Your task to perform on an android device: Check the weather Image 0: 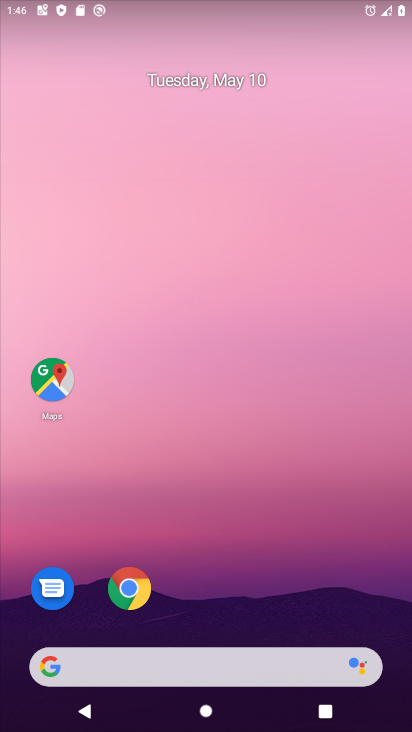
Step 0: click (166, 153)
Your task to perform on an android device: Check the weather Image 1: 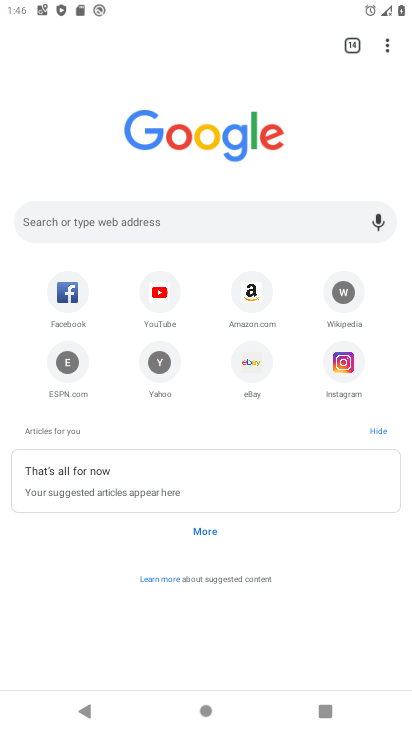
Step 1: press home button
Your task to perform on an android device: Check the weather Image 2: 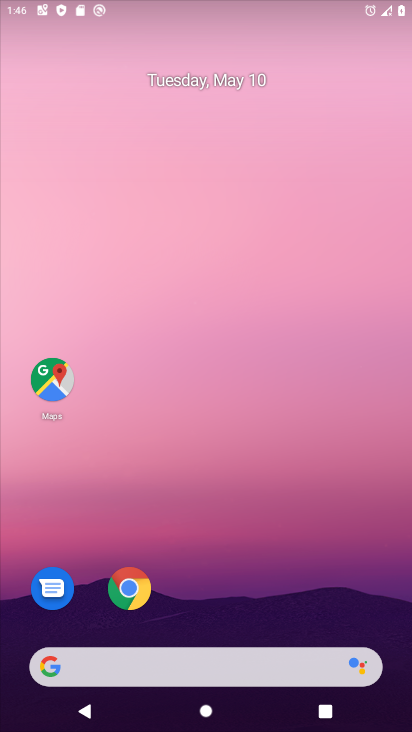
Step 2: drag from (229, 586) to (206, 226)
Your task to perform on an android device: Check the weather Image 3: 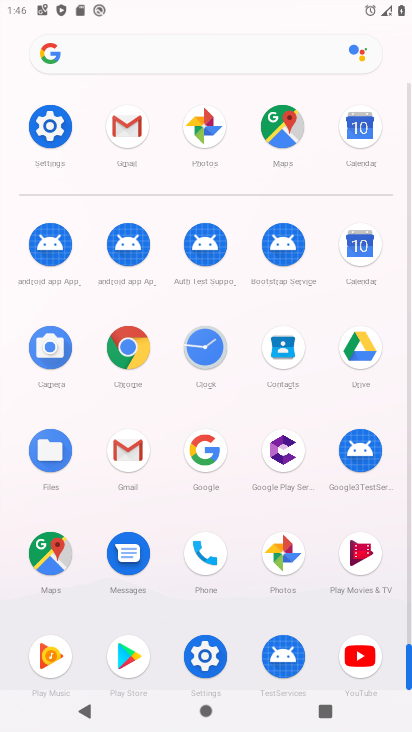
Step 3: click (126, 345)
Your task to perform on an android device: Check the weather Image 4: 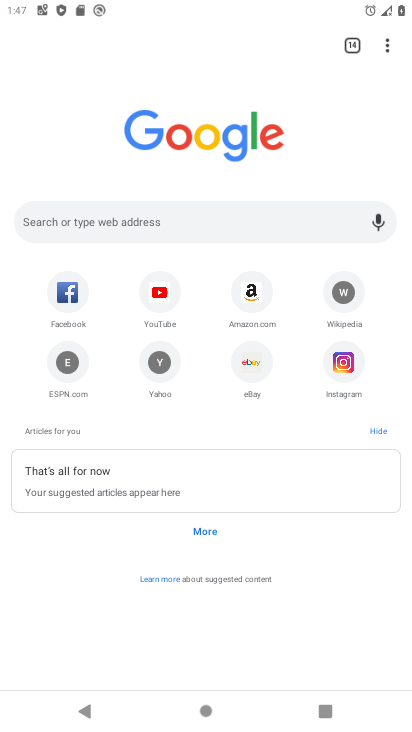
Step 4: click (213, 217)
Your task to perform on an android device: Check the weather Image 5: 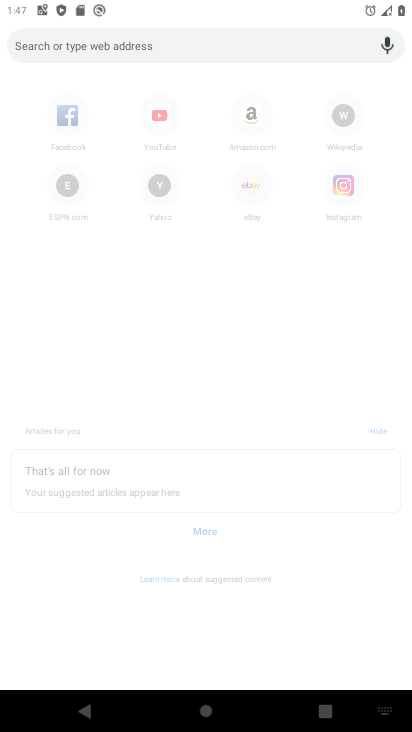
Step 5: click (235, 33)
Your task to perform on an android device: Check the weather Image 6: 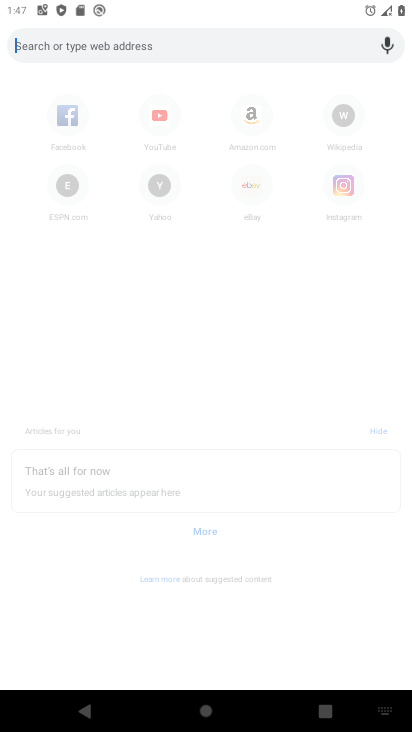
Step 6: type "Check the weather"
Your task to perform on an android device: Check the weather Image 7: 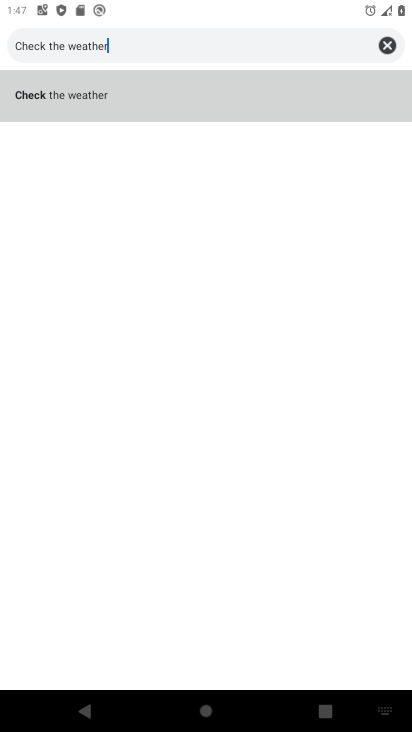
Step 7: click (97, 82)
Your task to perform on an android device: Check the weather Image 8: 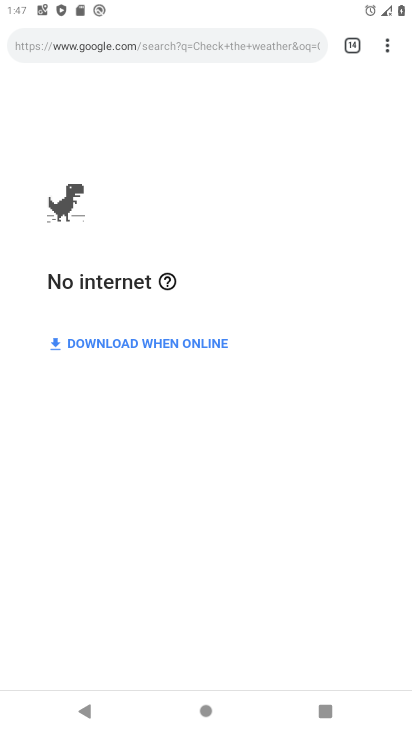
Step 8: task complete